Your task to perform on an android device: Open Amazon Image 0: 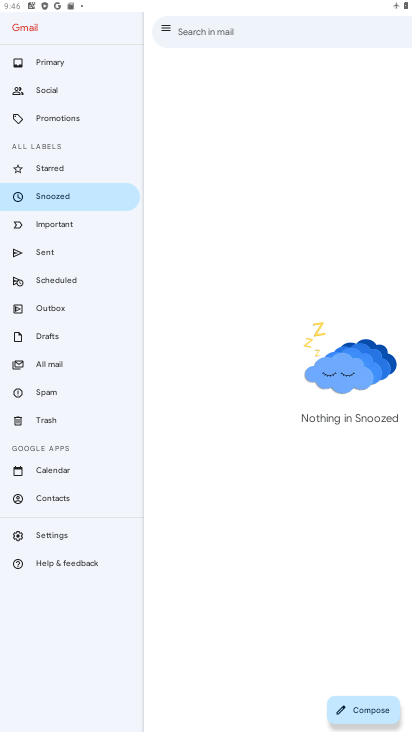
Step 0: task complete